Your task to perform on an android device: Open Chrome and go to settings Image 0: 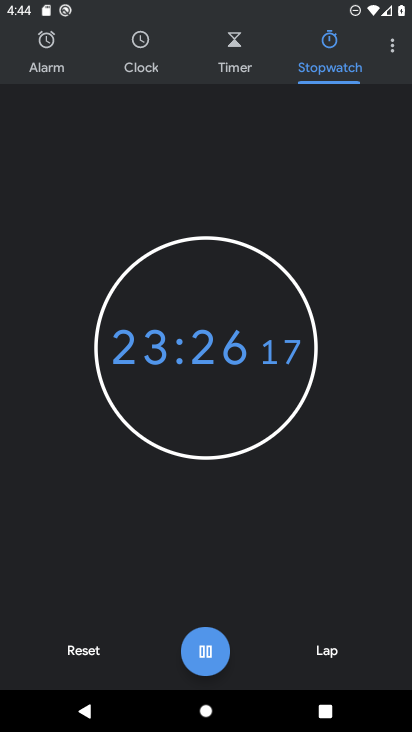
Step 0: click (90, 663)
Your task to perform on an android device: Open Chrome and go to settings Image 1: 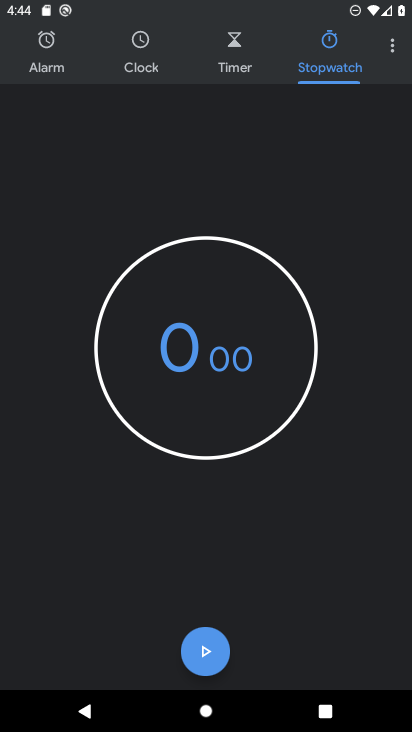
Step 1: press home button
Your task to perform on an android device: Open Chrome and go to settings Image 2: 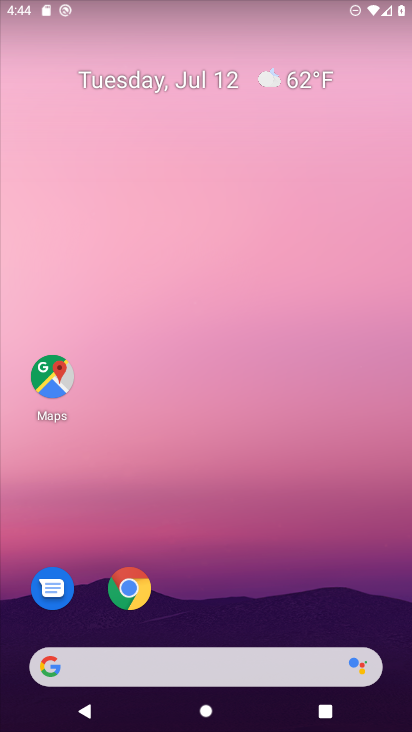
Step 2: click (146, 586)
Your task to perform on an android device: Open Chrome and go to settings Image 3: 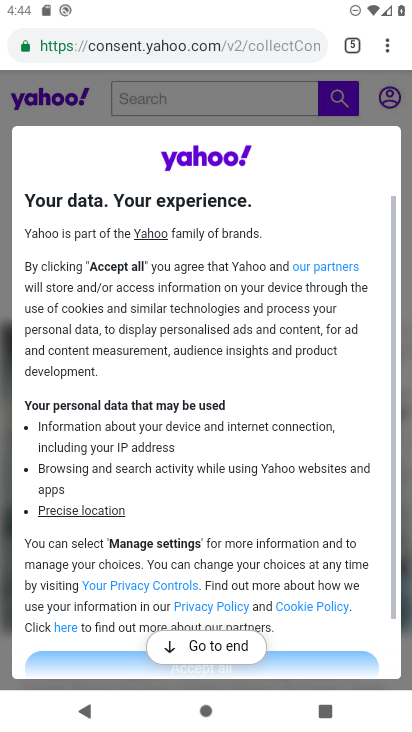
Step 3: click (389, 53)
Your task to perform on an android device: Open Chrome and go to settings Image 4: 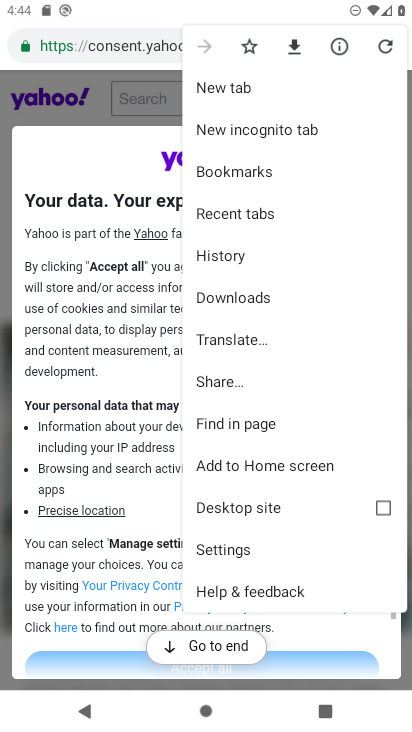
Step 4: click (241, 540)
Your task to perform on an android device: Open Chrome and go to settings Image 5: 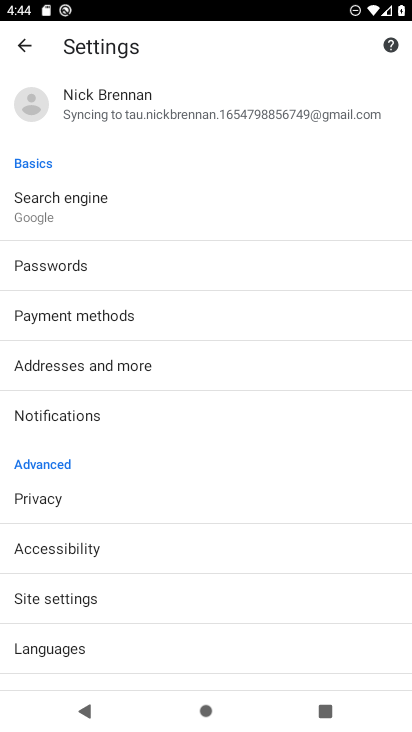
Step 5: task complete